Your task to perform on an android device: Is it going to rain this weekend? Image 0: 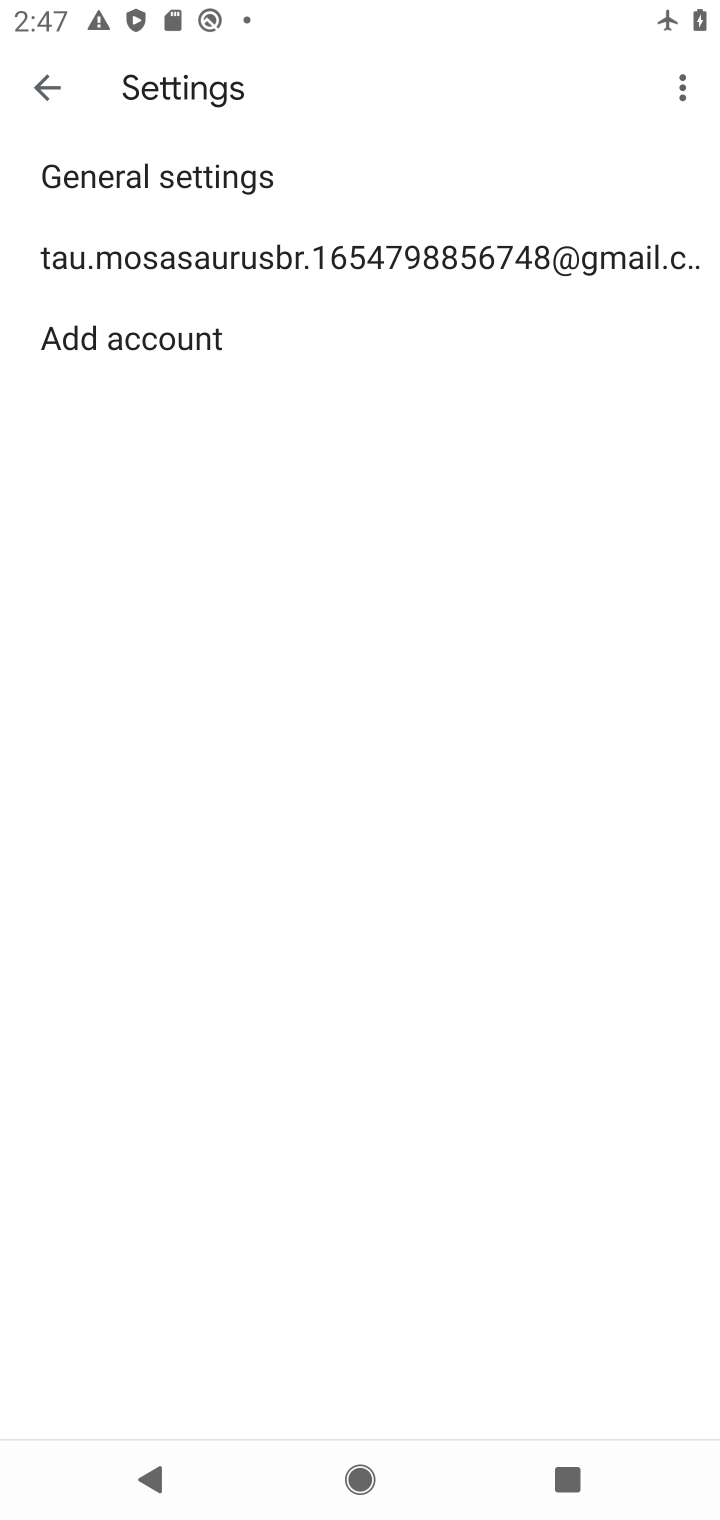
Step 0: press back button
Your task to perform on an android device: Is it going to rain this weekend? Image 1: 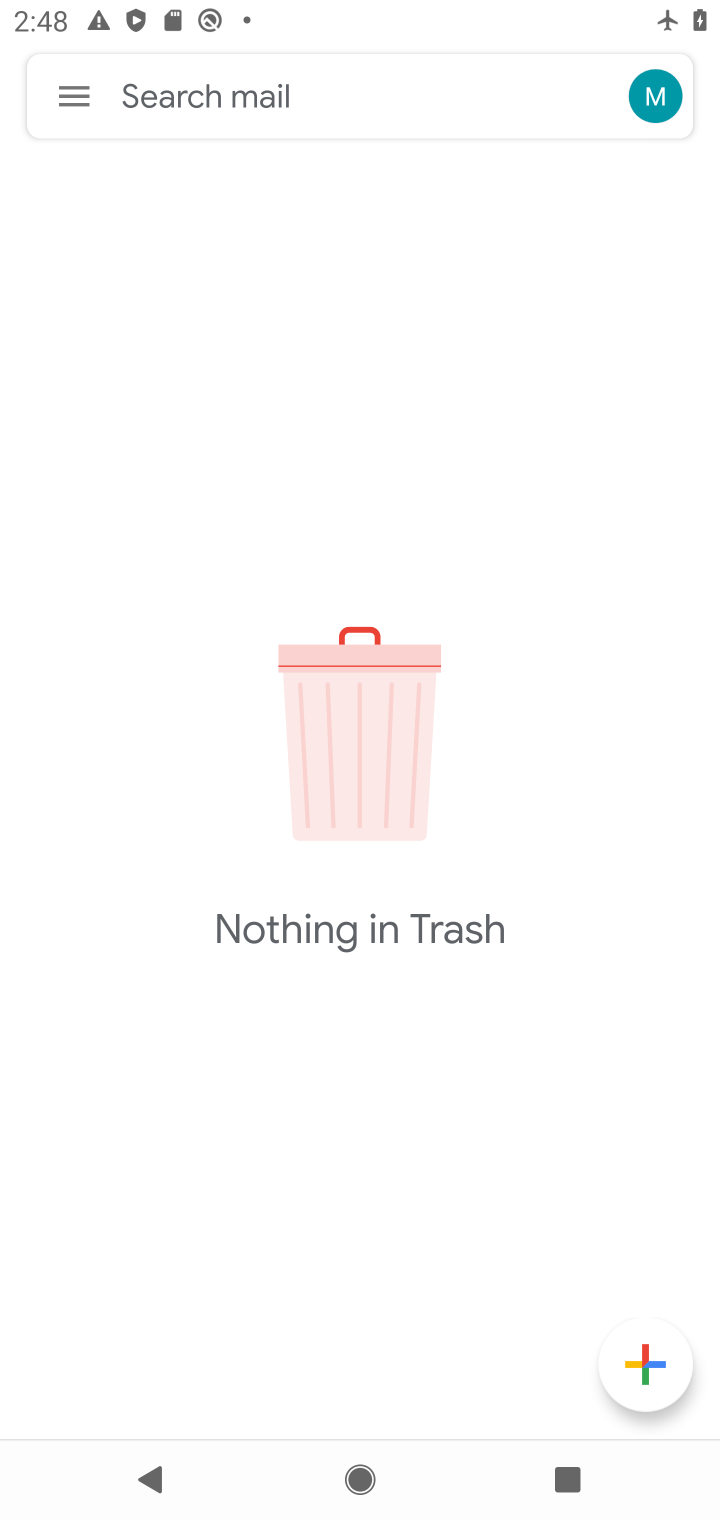
Step 1: press back button
Your task to perform on an android device: Is it going to rain this weekend? Image 2: 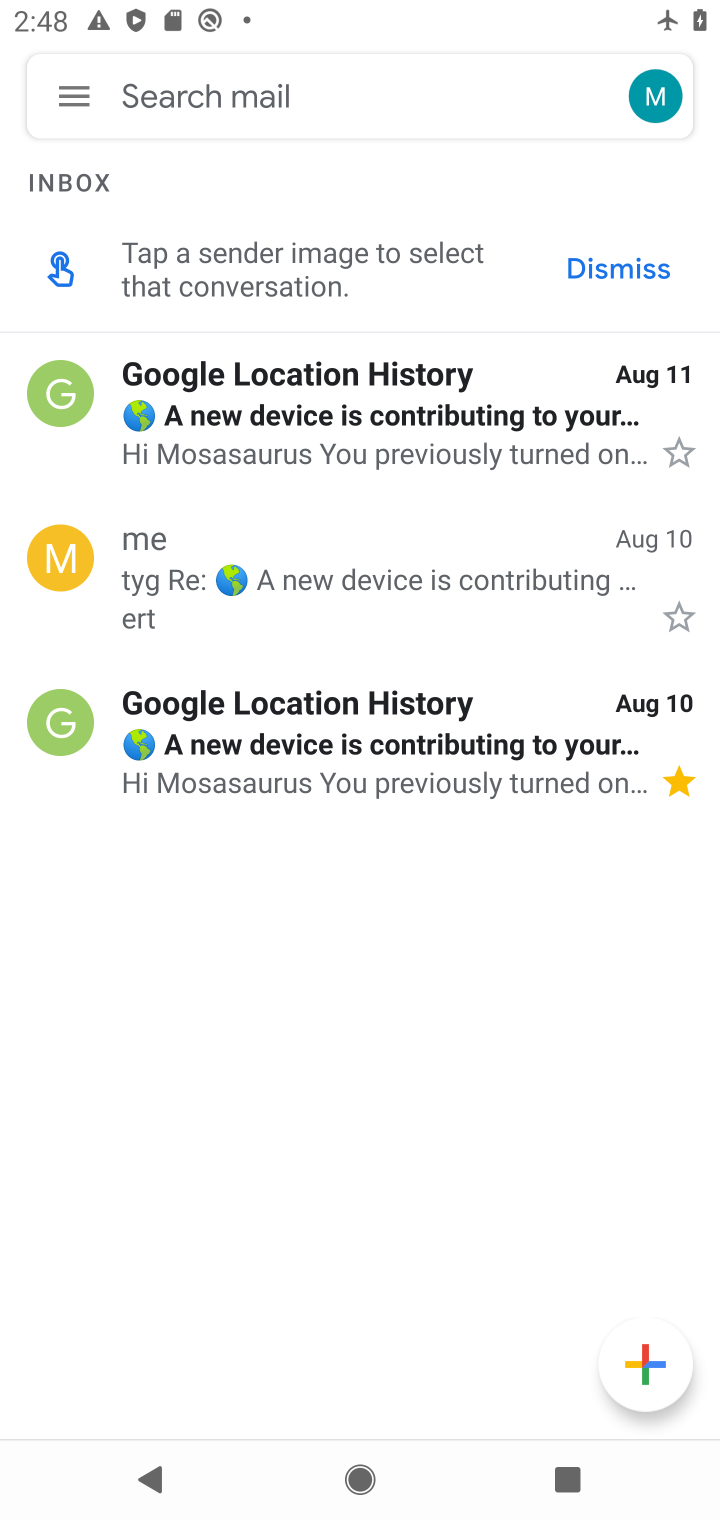
Step 2: press back button
Your task to perform on an android device: Is it going to rain this weekend? Image 3: 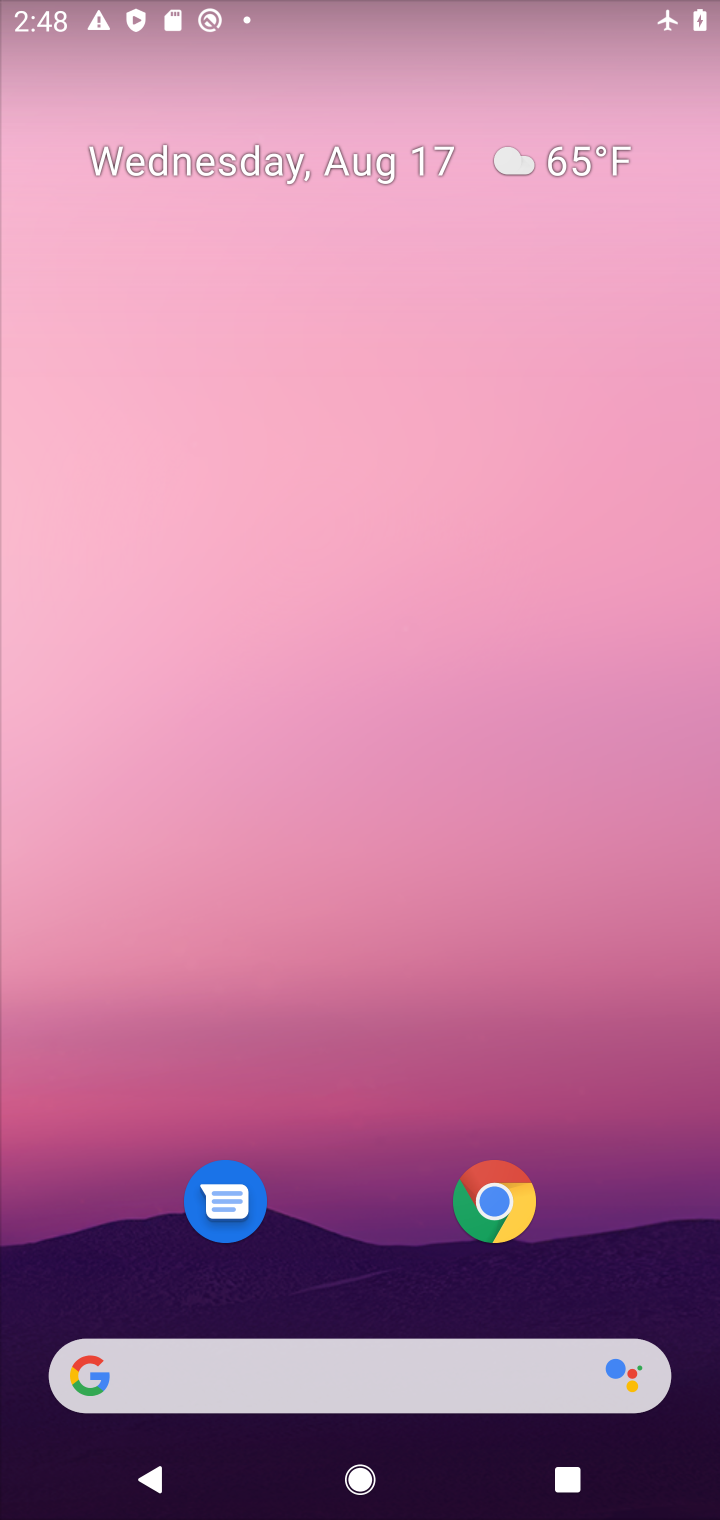
Step 3: click (327, 1374)
Your task to perform on an android device: Is it going to rain this weekend? Image 4: 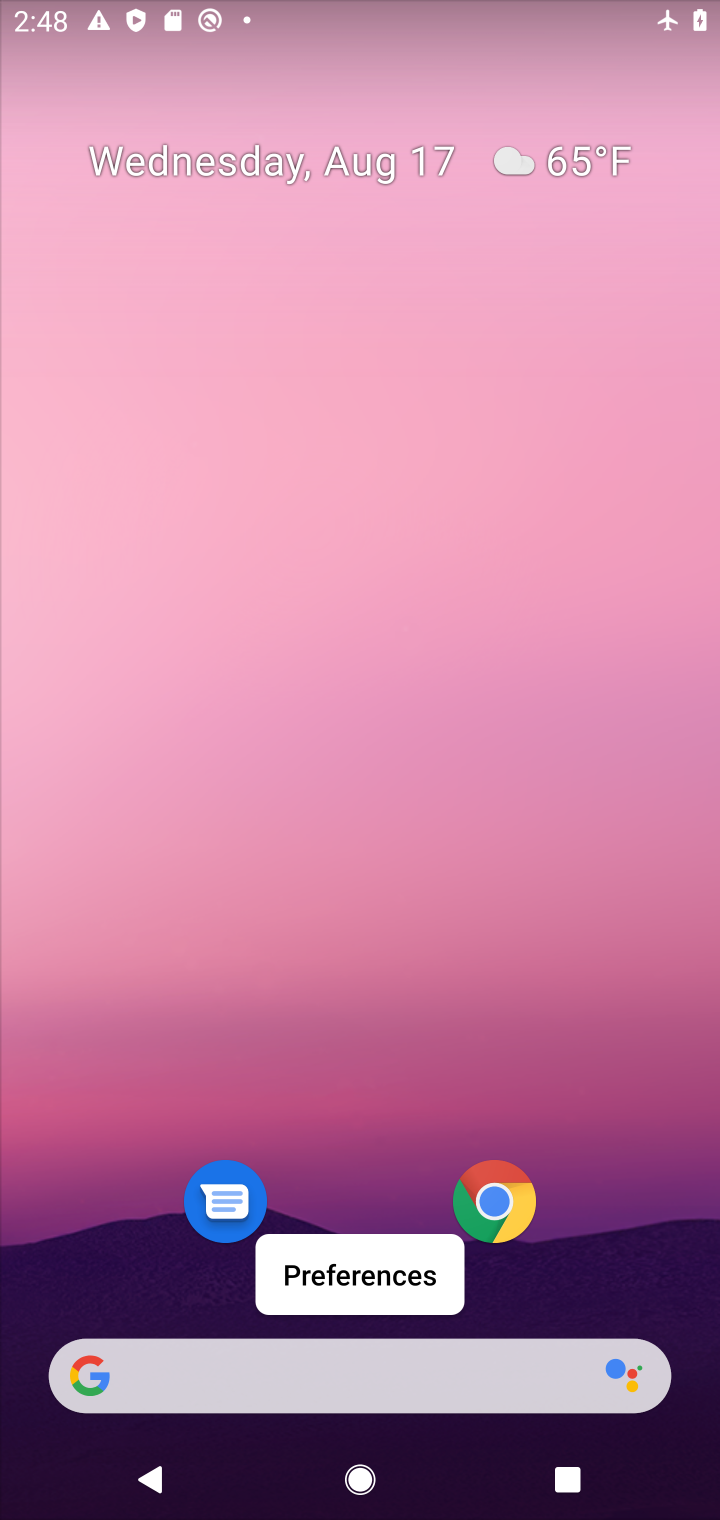
Step 4: click (273, 1381)
Your task to perform on an android device: Is it going to rain this weekend? Image 5: 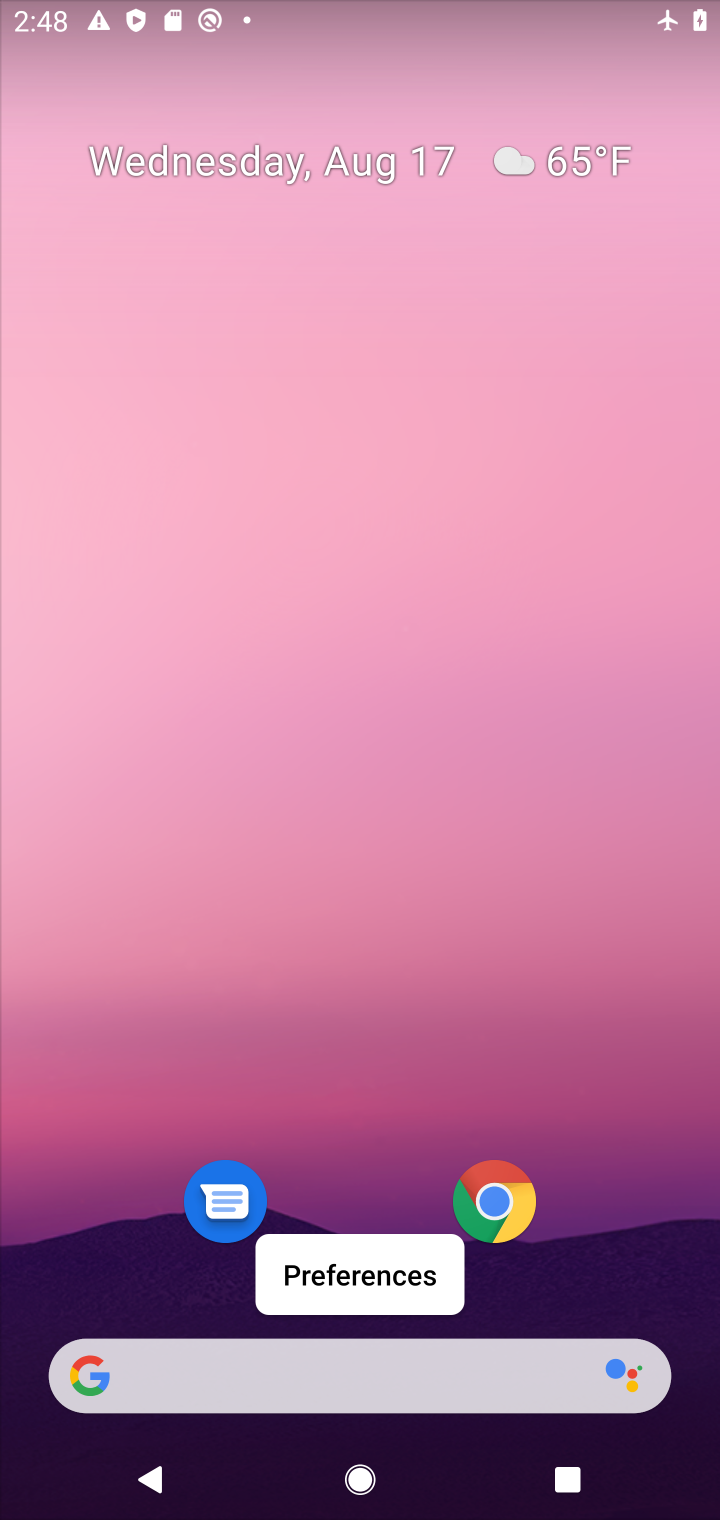
Step 5: click (273, 1381)
Your task to perform on an android device: Is it going to rain this weekend? Image 6: 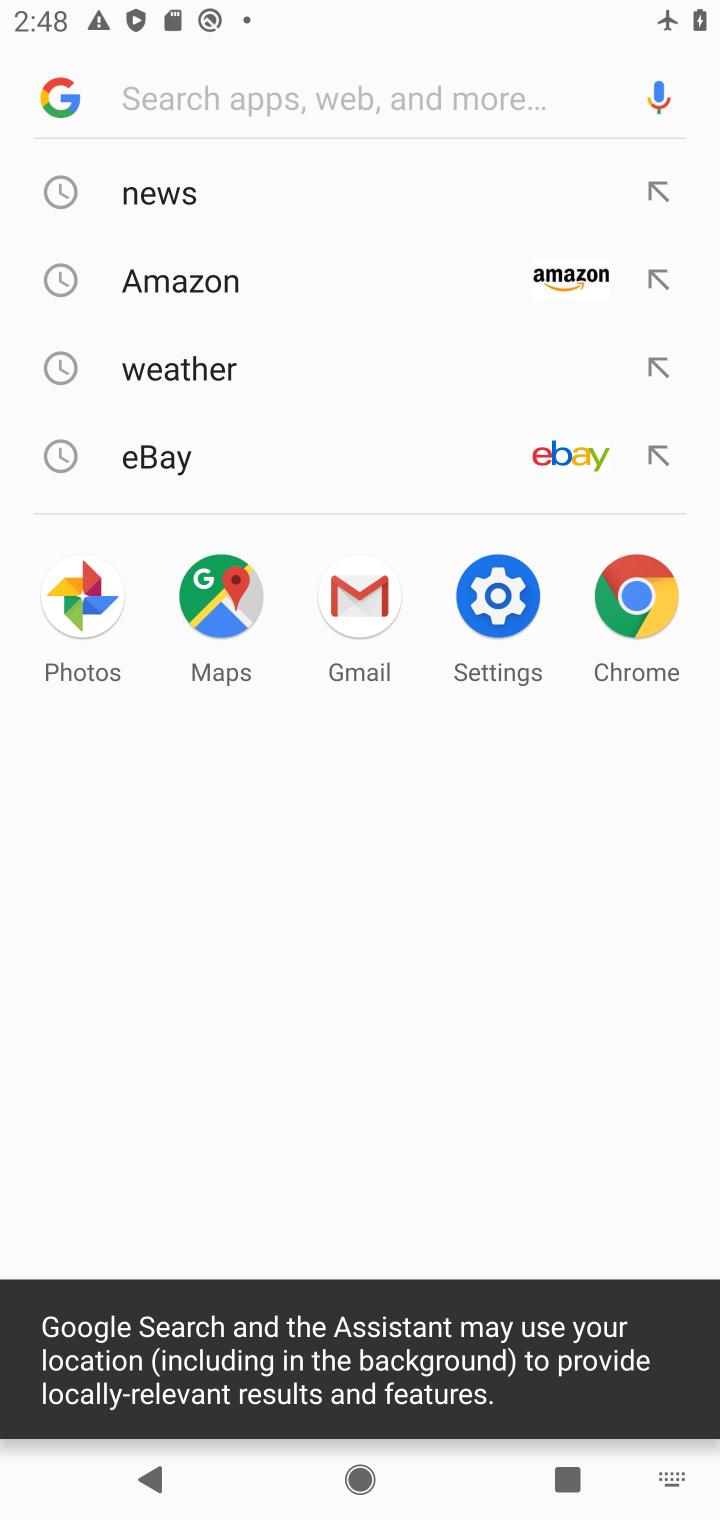
Step 6: click (205, 362)
Your task to perform on an android device: Is it going to rain this weekend? Image 7: 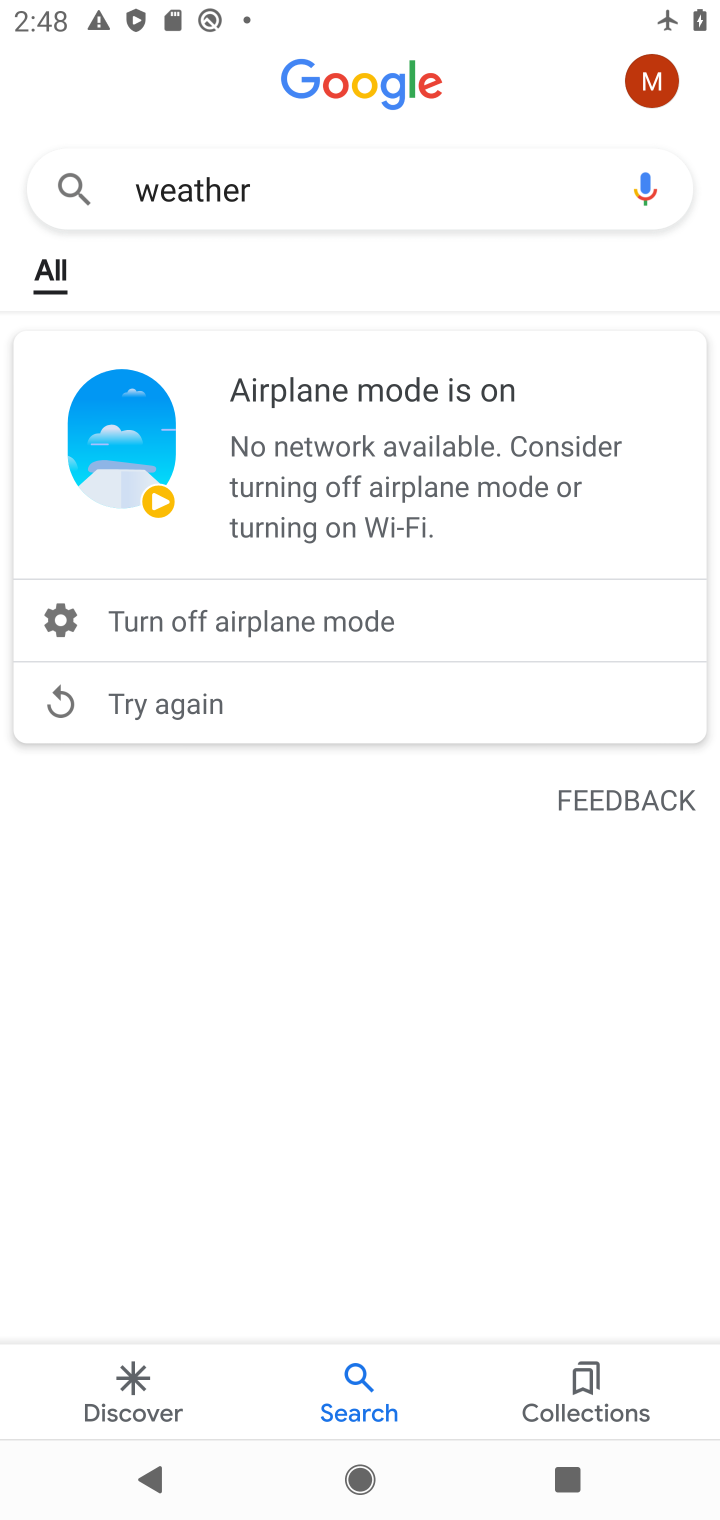
Step 7: drag from (641, 10) to (472, 1305)
Your task to perform on an android device: Is it going to rain this weekend? Image 8: 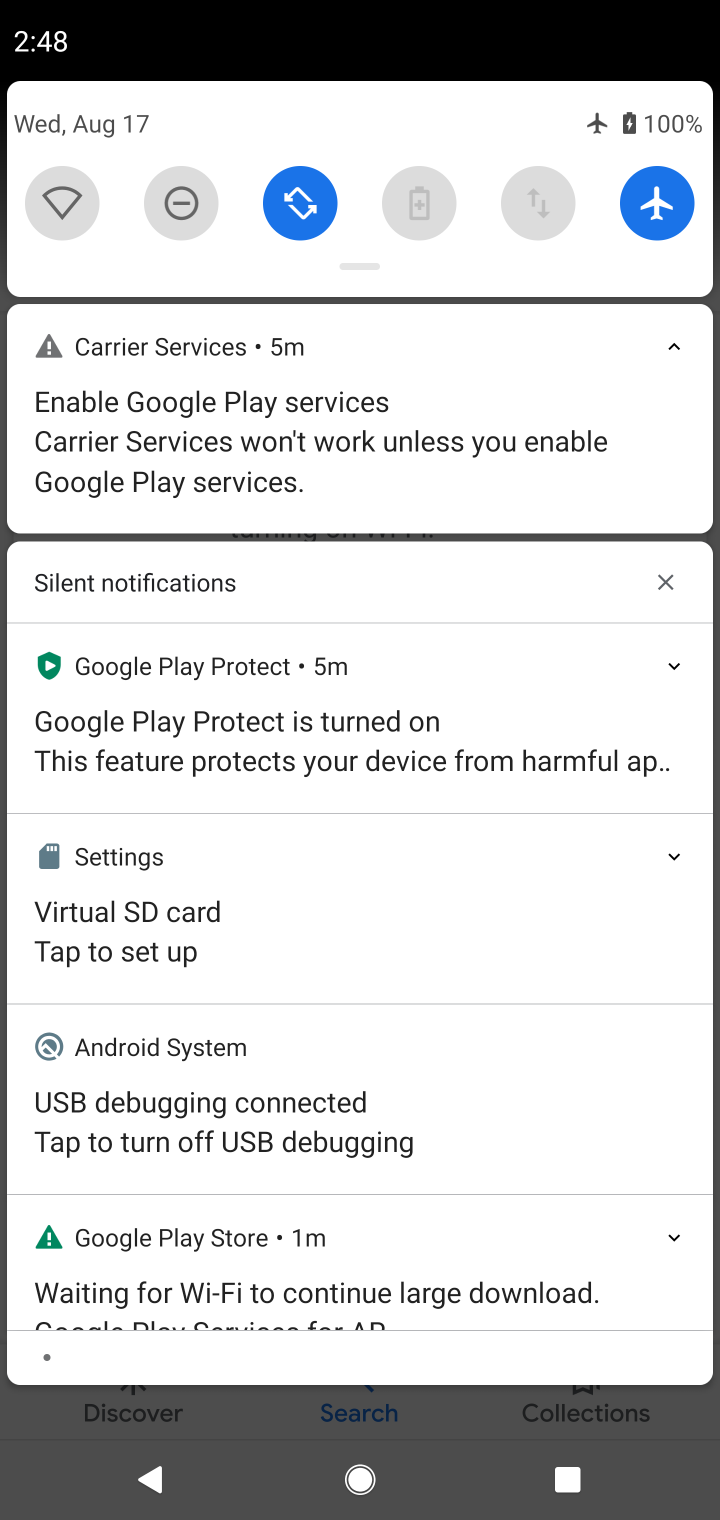
Step 8: click (669, 203)
Your task to perform on an android device: Is it going to rain this weekend? Image 9: 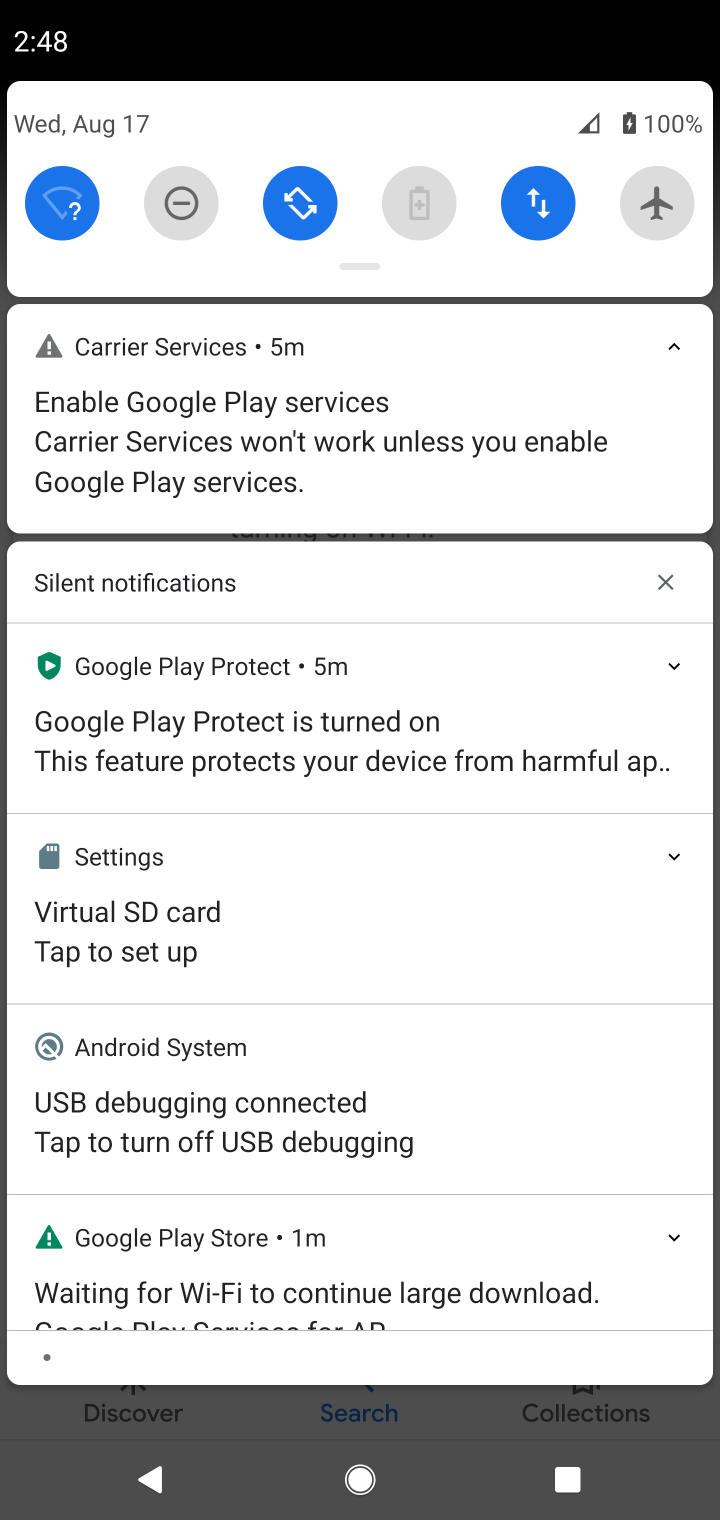
Step 9: click (361, 1413)
Your task to perform on an android device: Is it going to rain this weekend? Image 10: 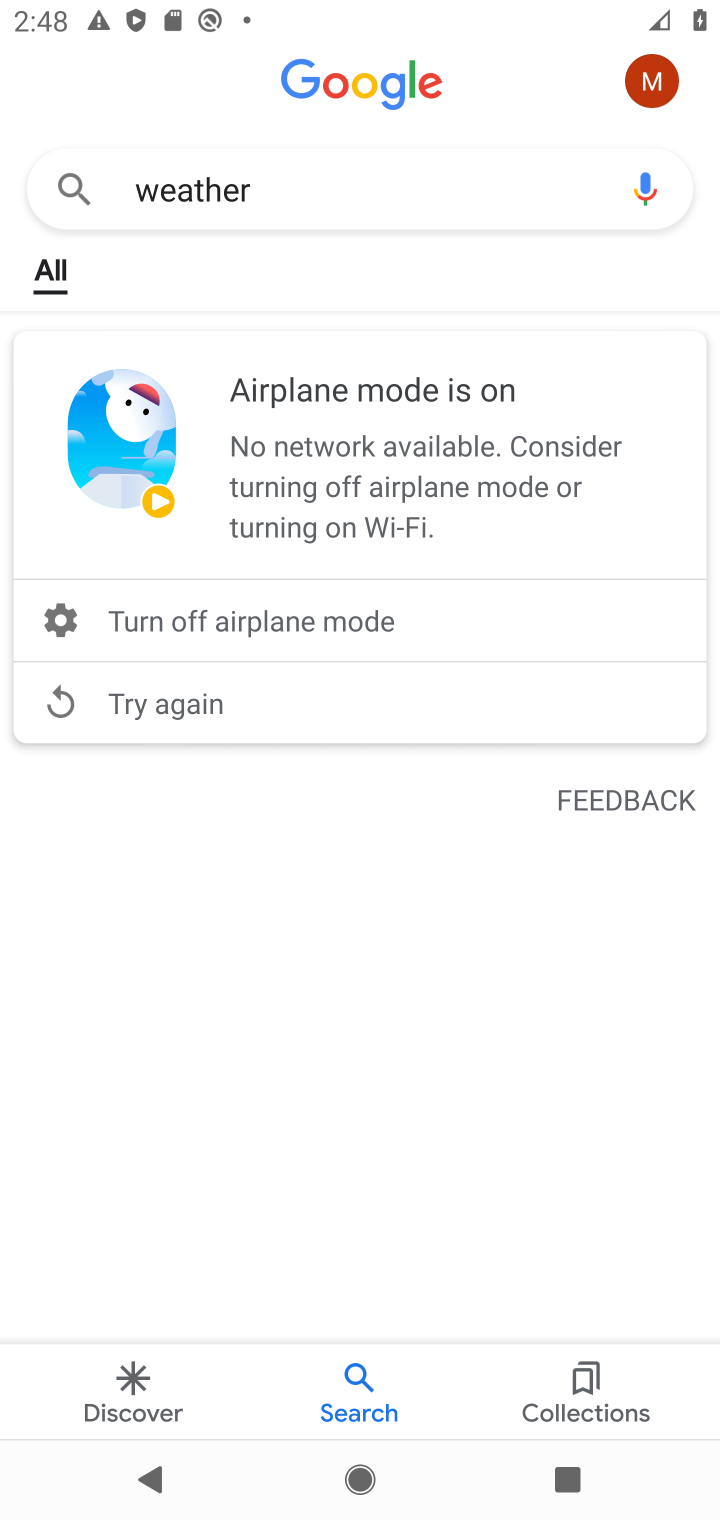
Step 10: click (167, 717)
Your task to perform on an android device: Is it going to rain this weekend? Image 11: 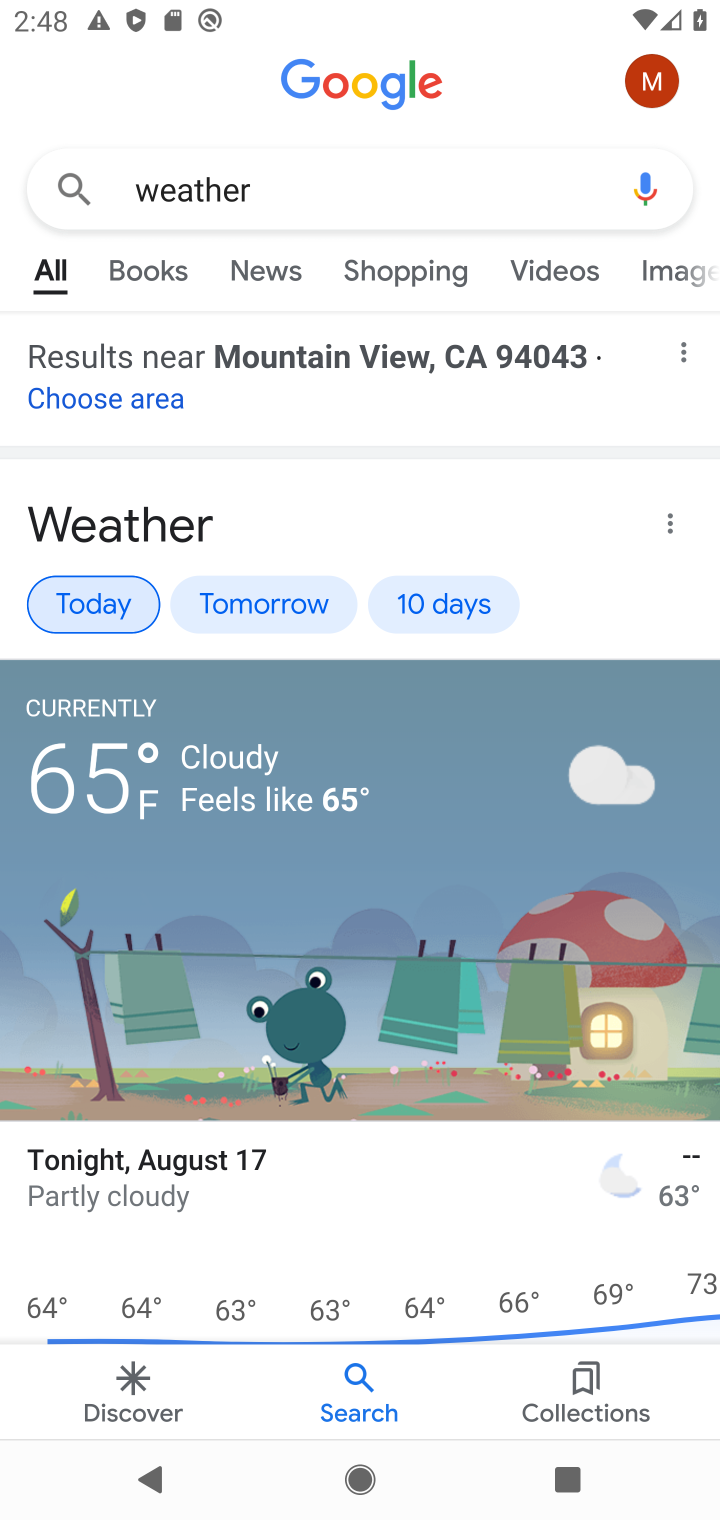
Step 11: click (438, 597)
Your task to perform on an android device: Is it going to rain this weekend? Image 12: 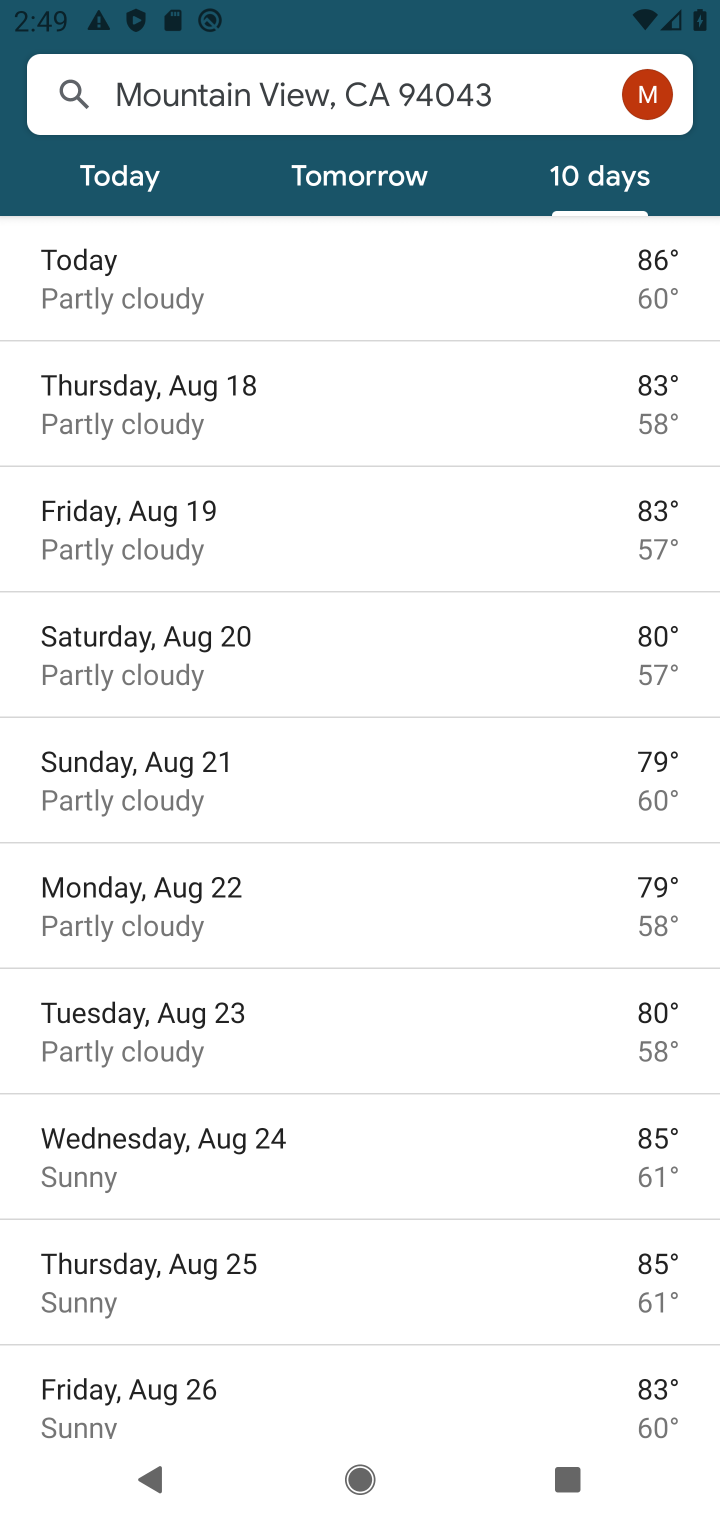
Step 12: task complete